Your task to perform on an android device: Search for the best rated desk chair on Article.com Image 0: 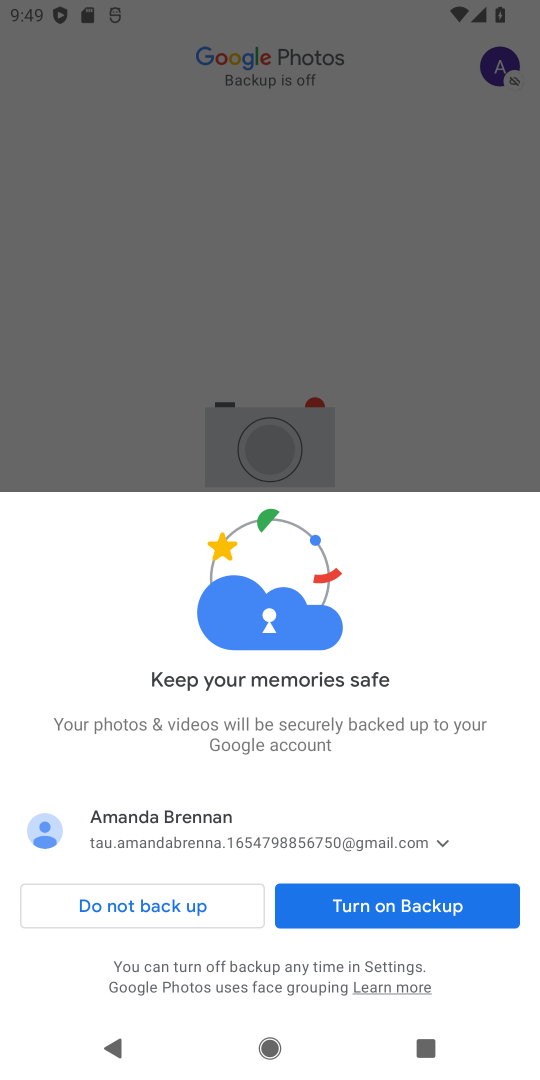
Step 0: press home button
Your task to perform on an android device: Search for the best rated desk chair on Article.com Image 1: 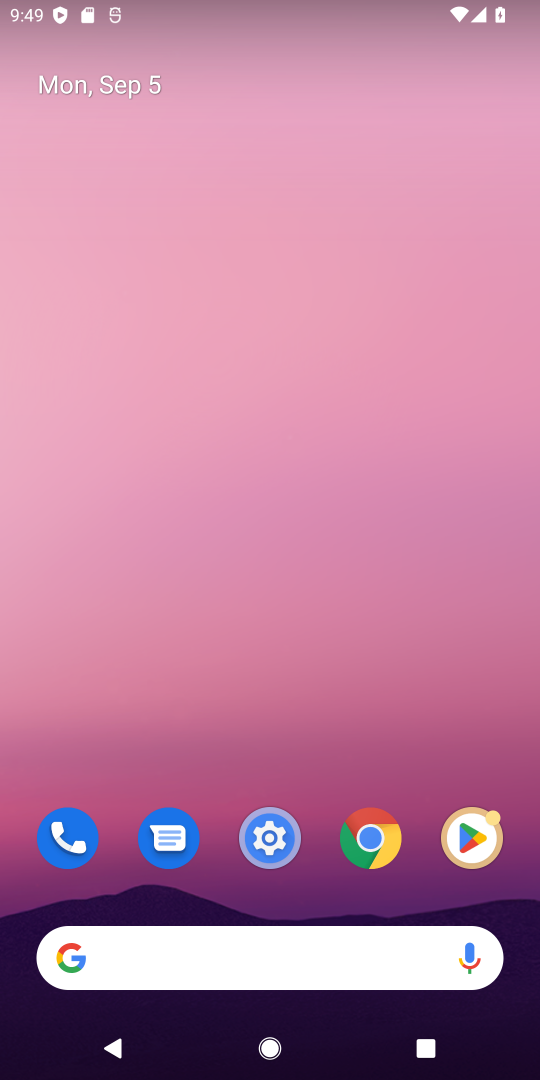
Step 1: click (362, 935)
Your task to perform on an android device: Search for the best rated desk chair on Article.com Image 2: 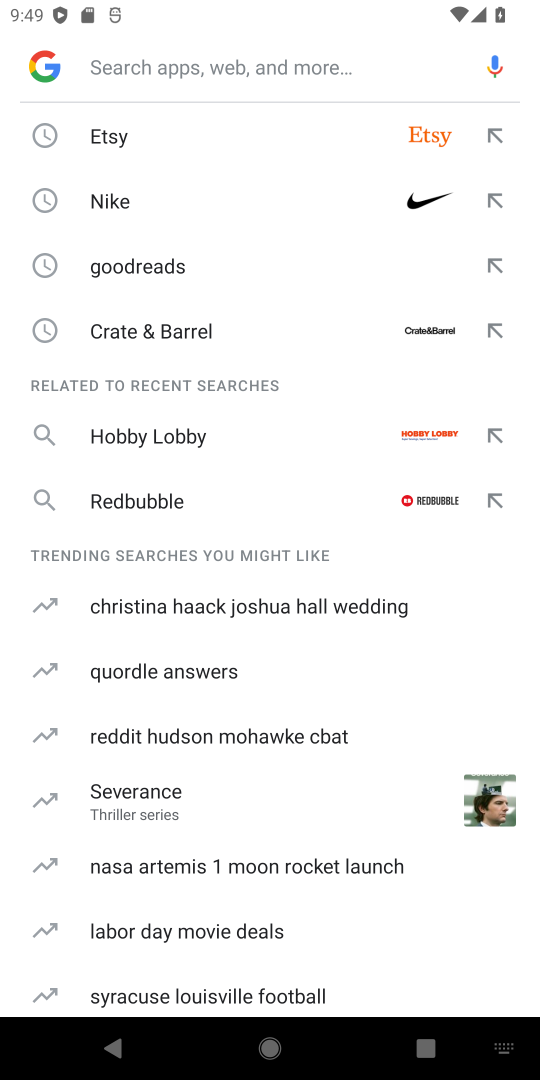
Step 2: type "Article.com"
Your task to perform on an android device: Search for the best rated desk chair on Article.com Image 3: 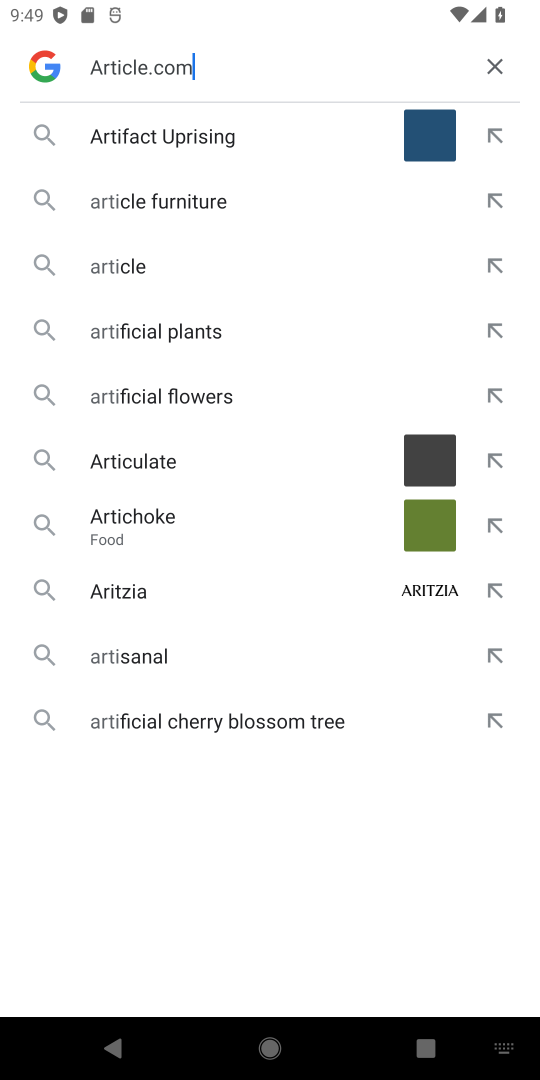
Step 3: type ""
Your task to perform on an android device: Search for the best rated desk chair on Article.com Image 4: 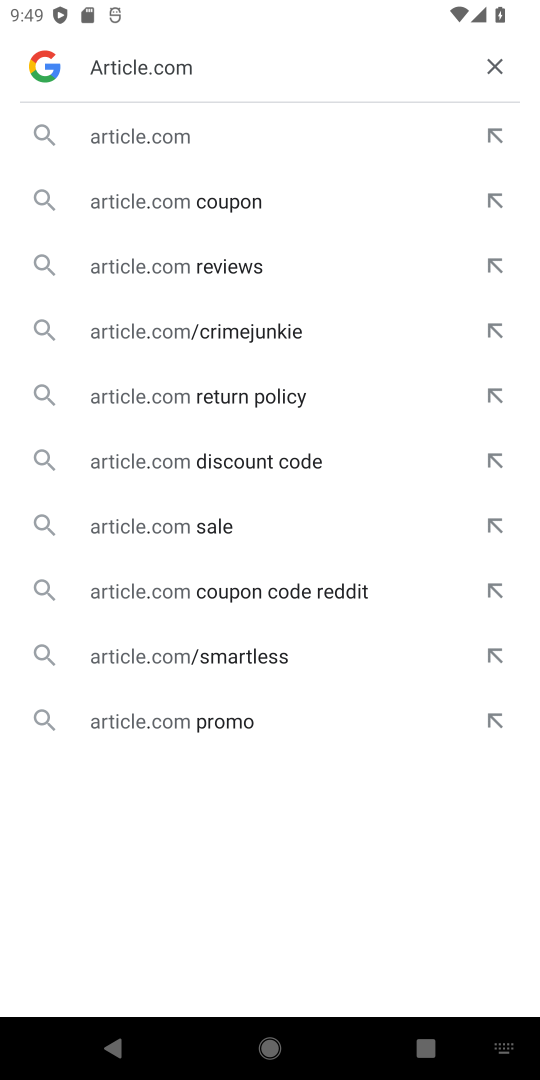
Step 4: click (174, 153)
Your task to perform on an android device: Search for the best rated desk chair on Article.com Image 5: 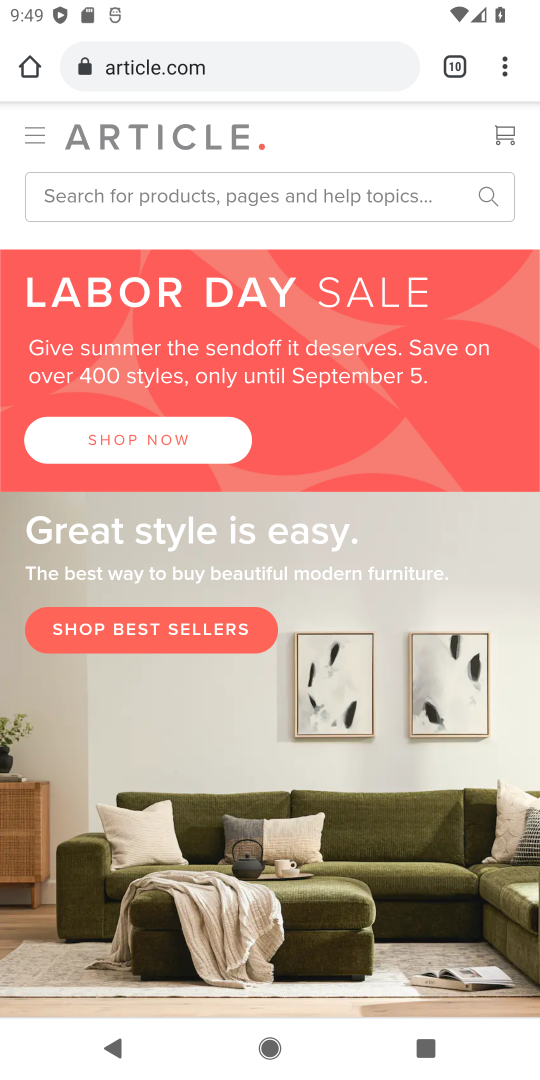
Step 5: click (309, 208)
Your task to perform on an android device: Search for the best rated desk chair on Article.com Image 6: 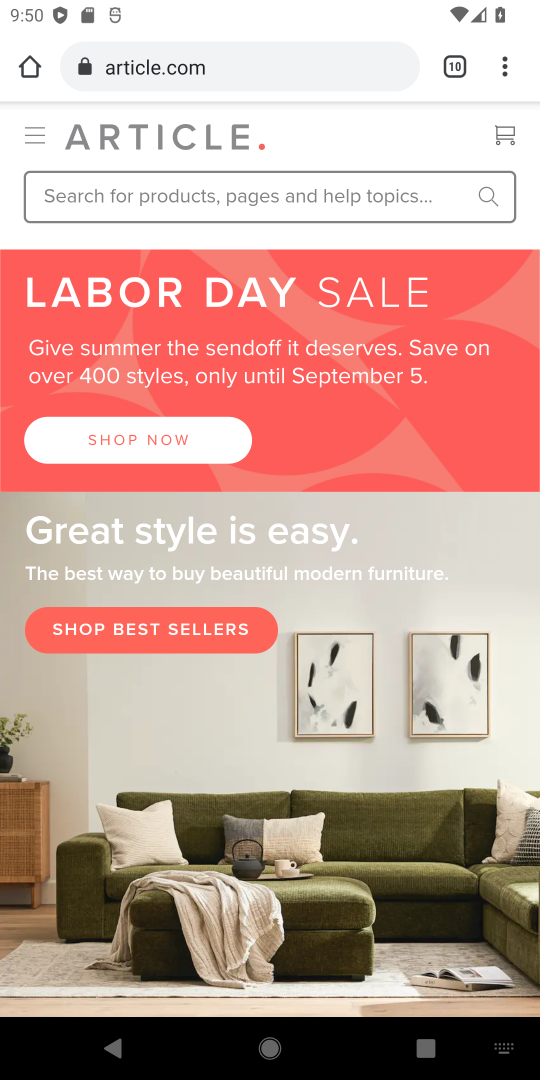
Step 6: type " desk chai"
Your task to perform on an android device: Search for the best rated desk chair on Article.com Image 7: 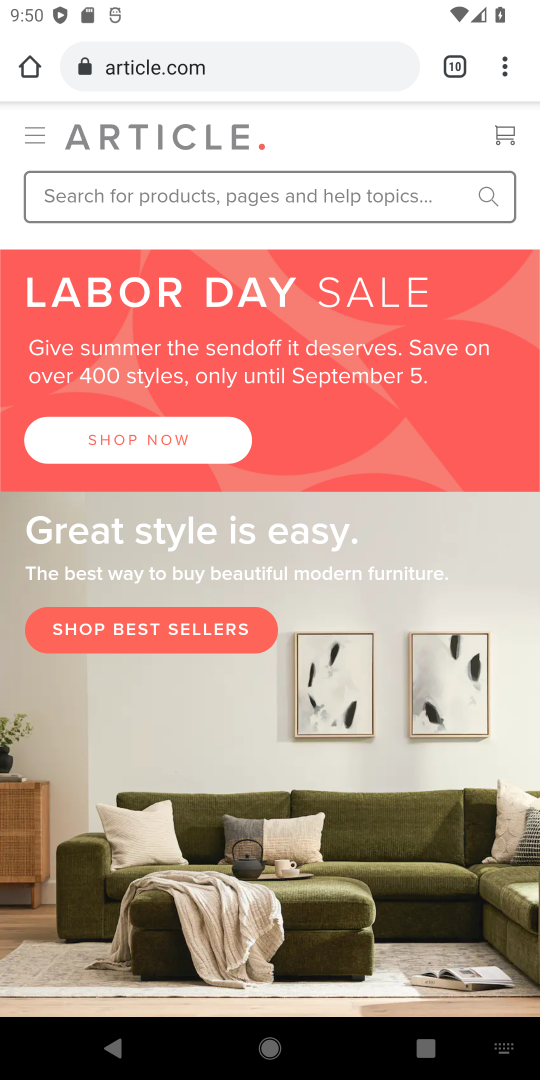
Step 7: type ""
Your task to perform on an android device: Search for the best rated desk chair on Article.com Image 8: 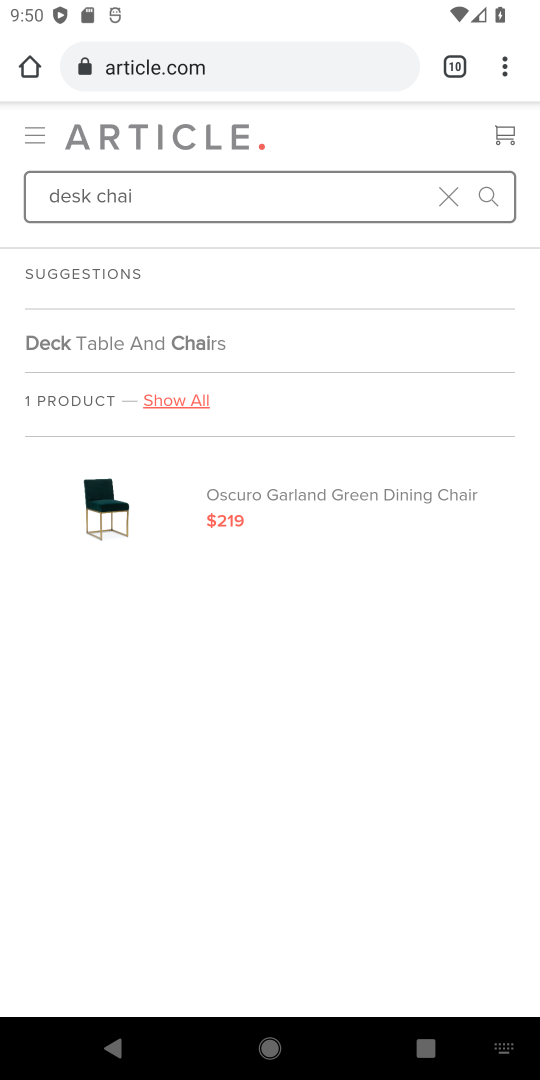
Step 8: type "r"
Your task to perform on an android device: Search for the best rated desk chair on Article.com Image 9: 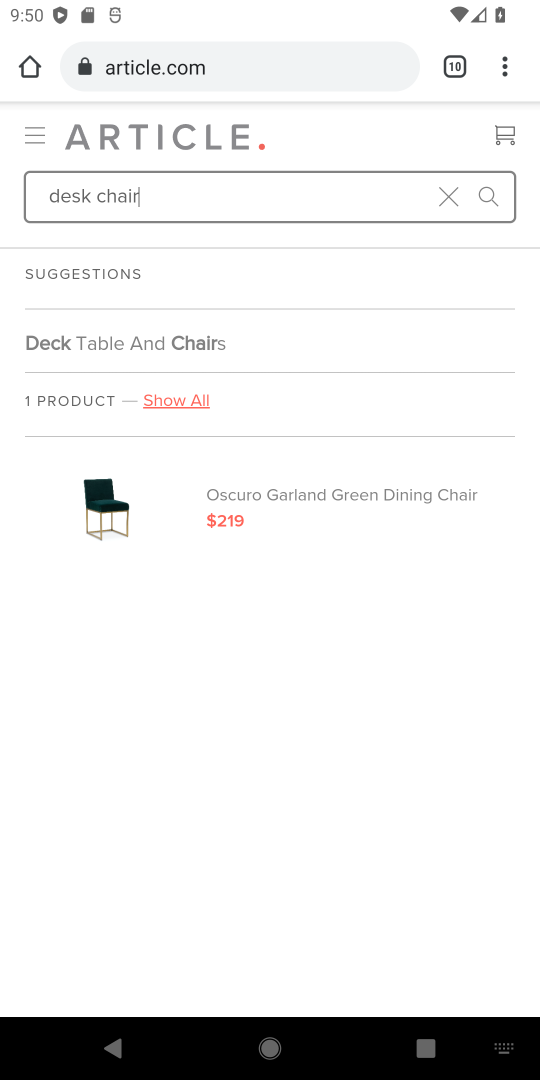
Step 9: click (490, 192)
Your task to perform on an android device: Search for the best rated desk chair on Article.com Image 10: 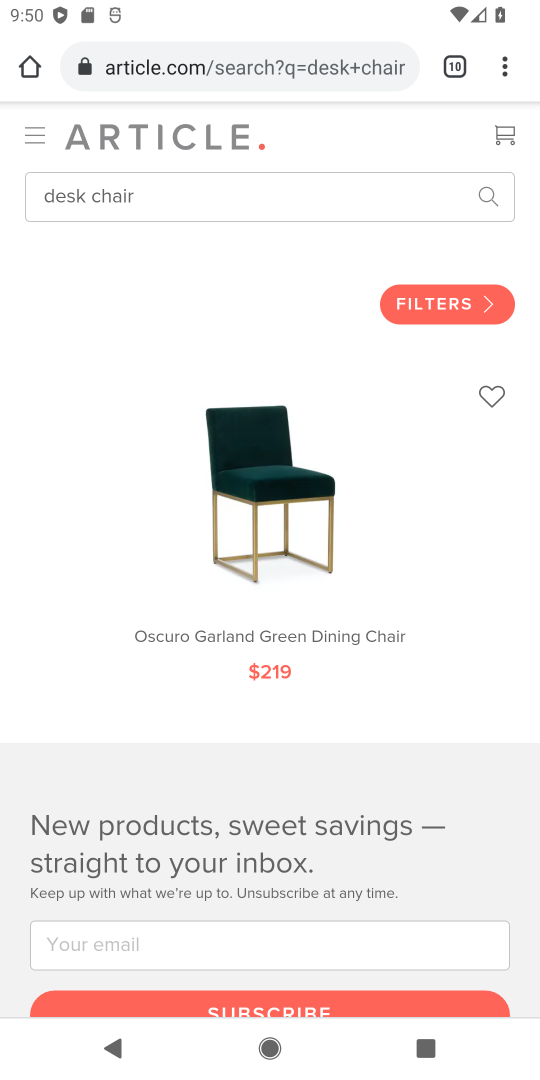
Step 10: task complete